Your task to perform on an android device: change the clock display to show seconds Image 0: 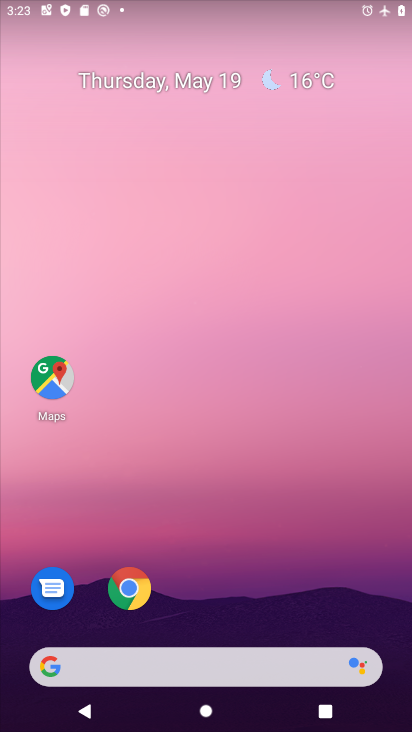
Step 0: drag from (222, 568) to (254, 119)
Your task to perform on an android device: change the clock display to show seconds Image 1: 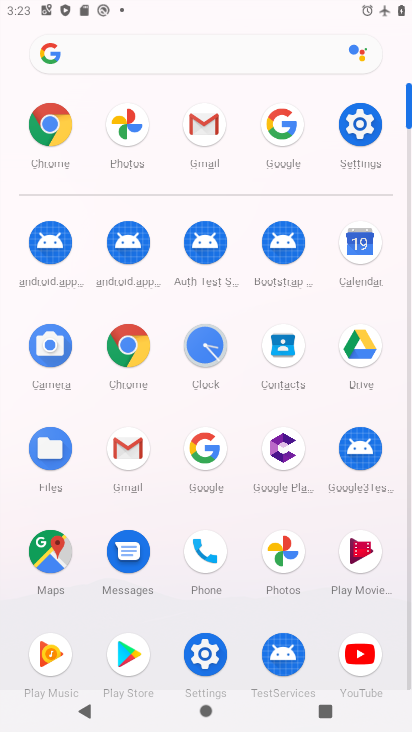
Step 1: click (195, 341)
Your task to perform on an android device: change the clock display to show seconds Image 2: 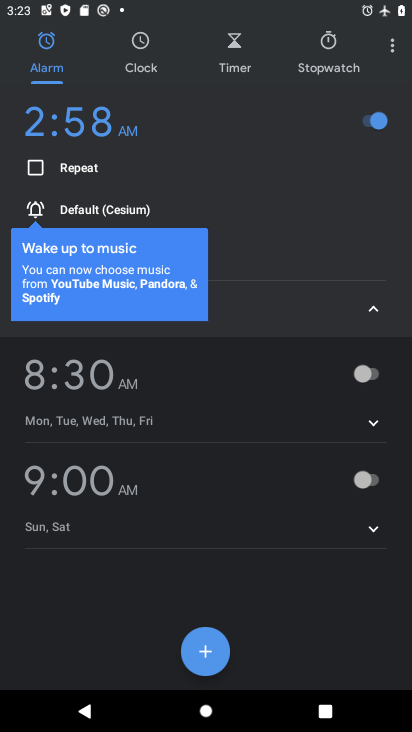
Step 2: drag from (380, 48) to (284, 91)
Your task to perform on an android device: change the clock display to show seconds Image 3: 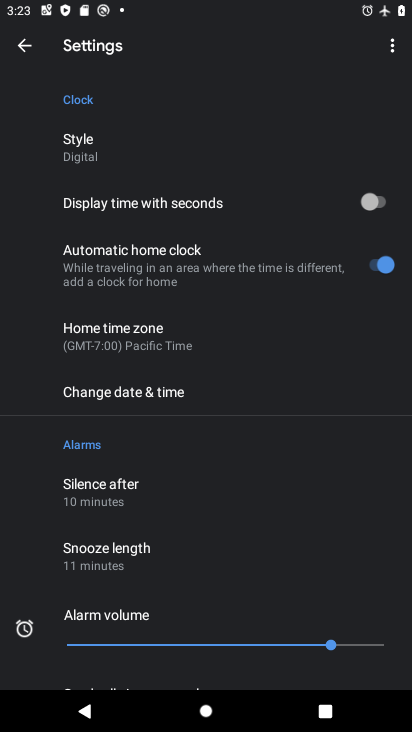
Step 3: click (383, 201)
Your task to perform on an android device: change the clock display to show seconds Image 4: 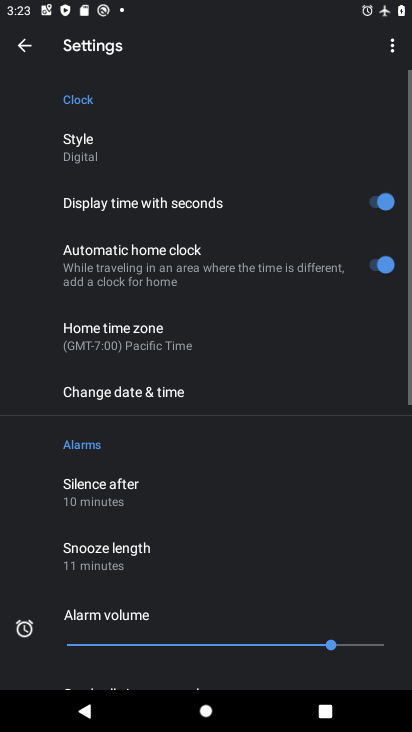
Step 4: task complete